Your task to perform on an android device: Go to Yahoo.com Image 0: 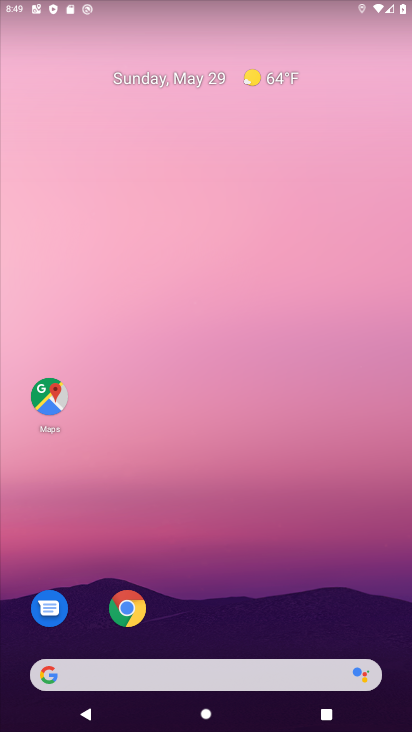
Step 0: click (127, 609)
Your task to perform on an android device: Go to Yahoo.com Image 1: 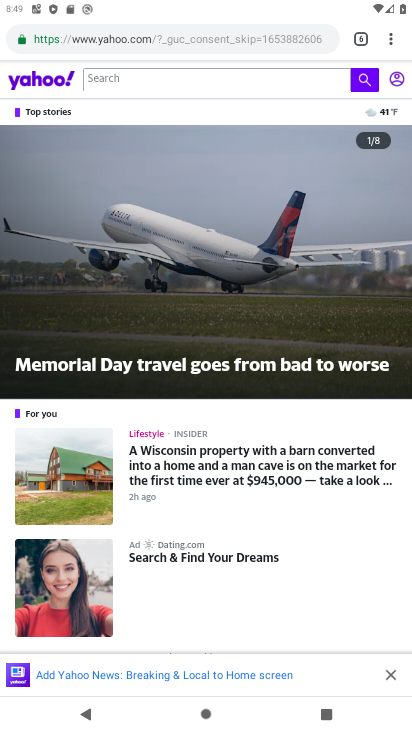
Step 1: task complete